Your task to perform on an android device: turn on translation in the chrome app Image 0: 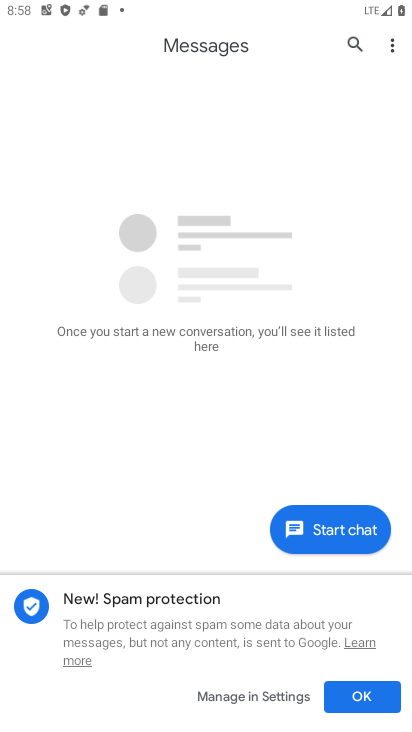
Step 0: press home button
Your task to perform on an android device: turn on translation in the chrome app Image 1: 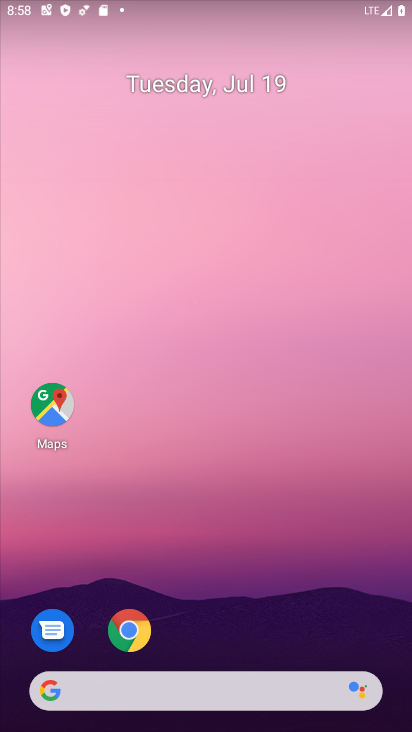
Step 1: click (135, 635)
Your task to perform on an android device: turn on translation in the chrome app Image 2: 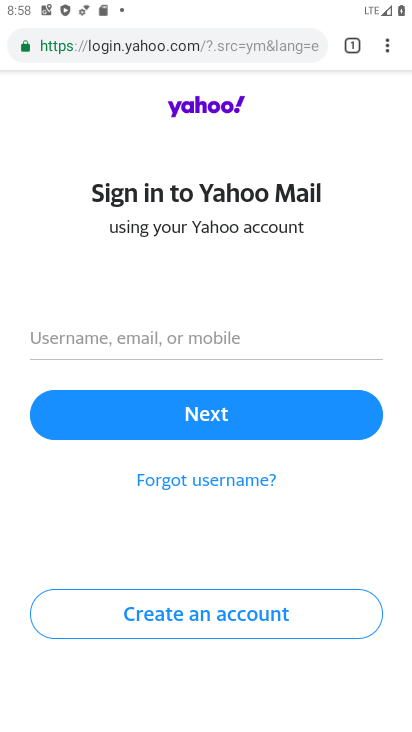
Step 2: click (387, 49)
Your task to perform on an android device: turn on translation in the chrome app Image 3: 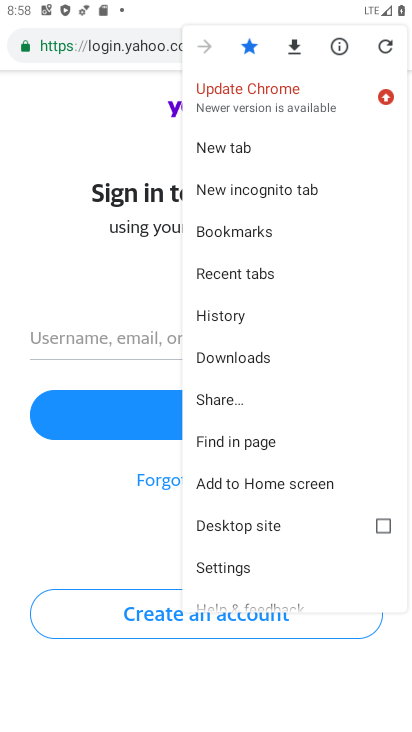
Step 3: click (221, 568)
Your task to perform on an android device: turn on translation in the chrome app Image 4: 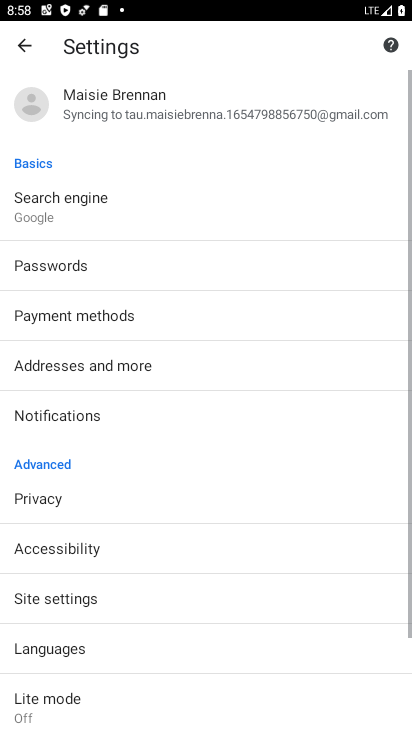
Step 4: click (54, 637)
Your task to perform on an android device: turn on translation in the chrome app Image 5: 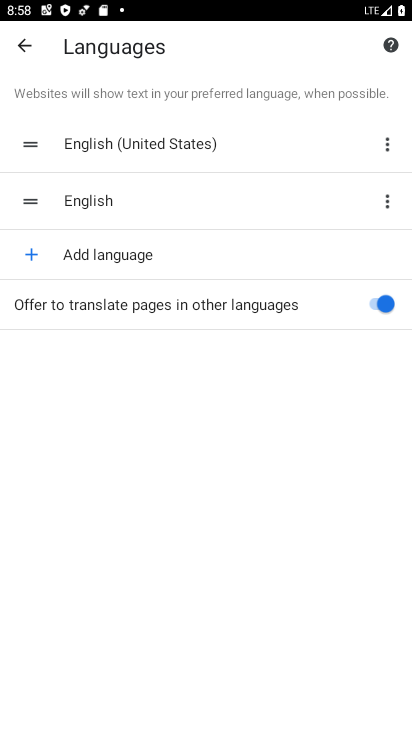
Step 5: task complete